Your task to perform on an android device: remove spam from my inbox in the gmail app Image 0: 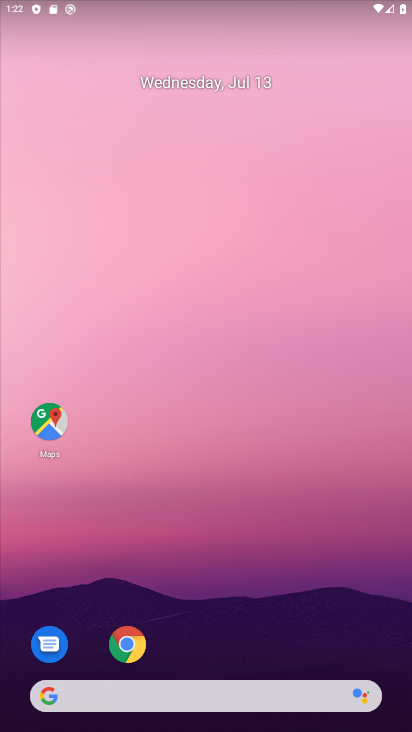
Step 0: drag from (292, 613) to (274, 311)
Your task to perform on an android device: remove spam from my inbox in the gmail app Image 1: 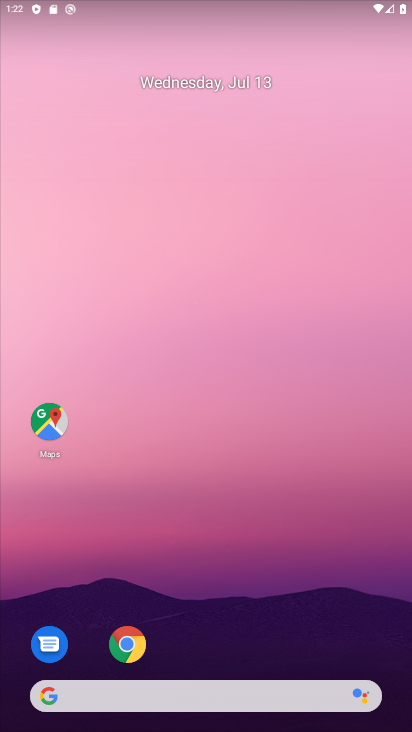
Step 1: drag from (264, 575) to (228, 102)
Your task to perform on an android device: remove spam from my inbox in the gmail app Image 2: 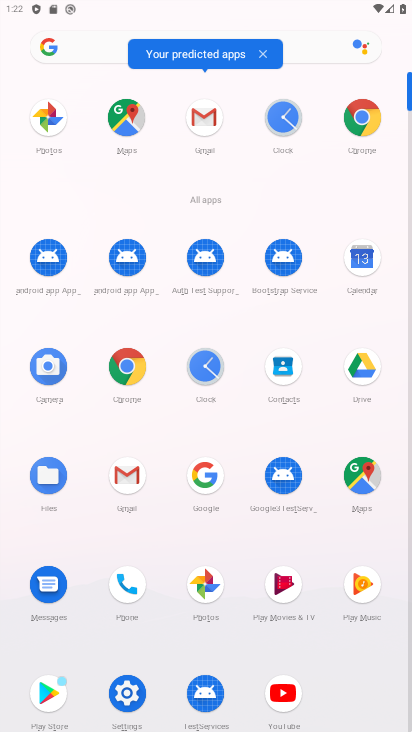
Step 2: click (195, 113)
Your task to perform on an android device: remove spam from my inbox in the gmail app Image 3: 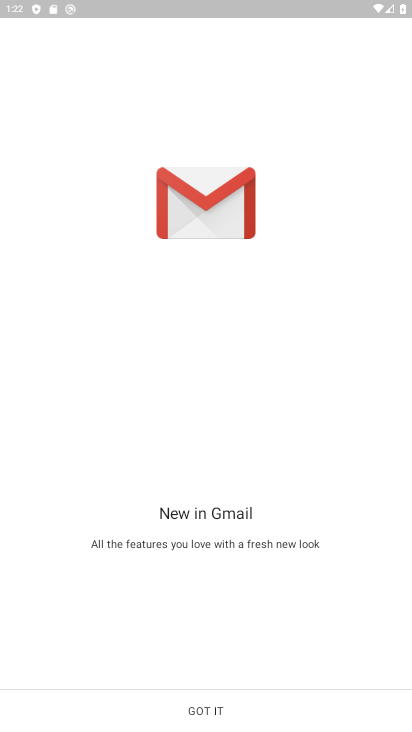
Step 3: click (321, 707)
Your task to perform on an android device: remove spam from my inbox in the gmail app Image 4: 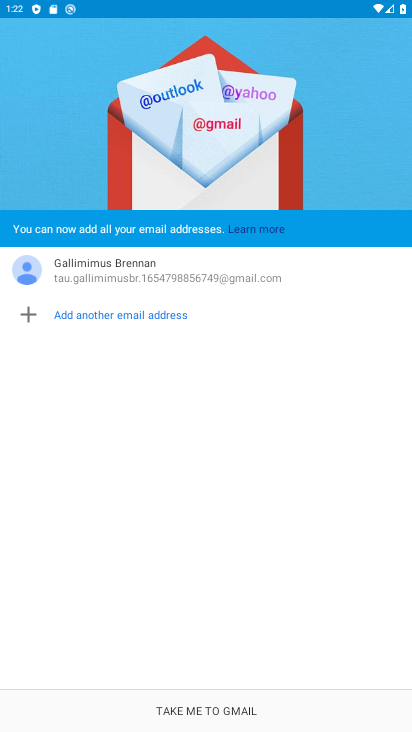
Step 4: click (232, 705)
Your task to perform on an android device: remove spam from my inbox in the gmail app Image 5: 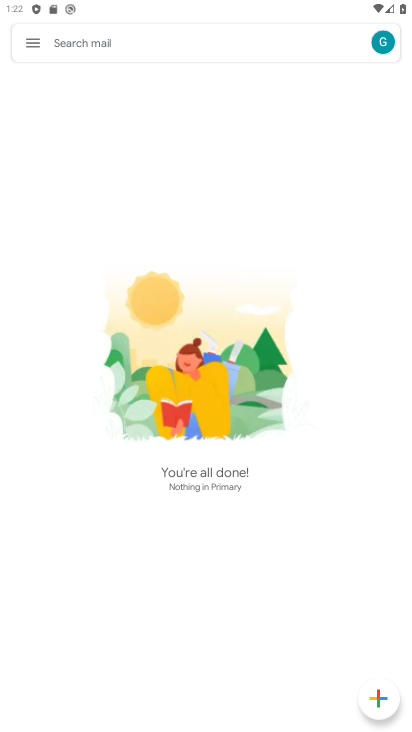
Step 5: click (33, 48)
Your task to perform on an android device: remove spam from my inbox in the gmail app Image 6: 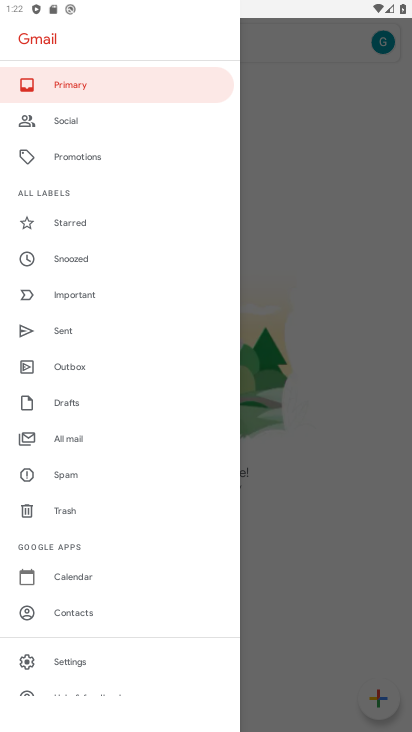
Step 6: click (68, 468)
Your task to perform on an android device: remove spam from my inbox in the gmail app Image 7: 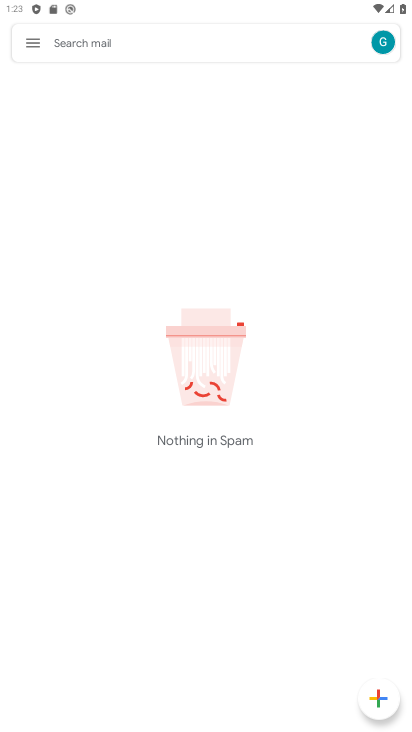
Step 7: task complete